Your task to perform on an android device: Open Chrome and go to the settings page Image 0: 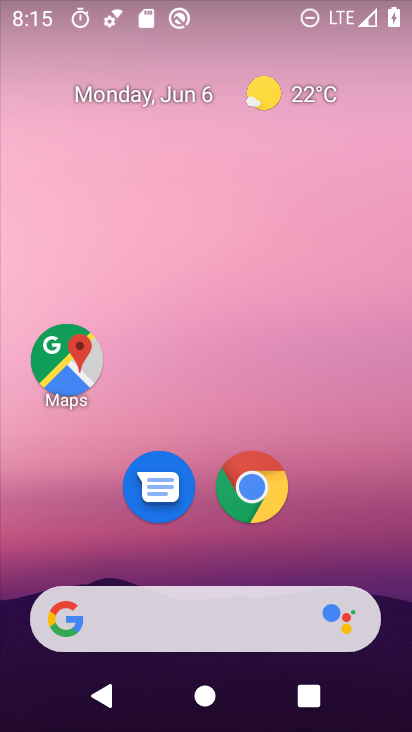
Step 0: drag from (391, 471) to (324, 108)
Your task to perform on an android device: Open Chrome and go to the settings page Image 1: 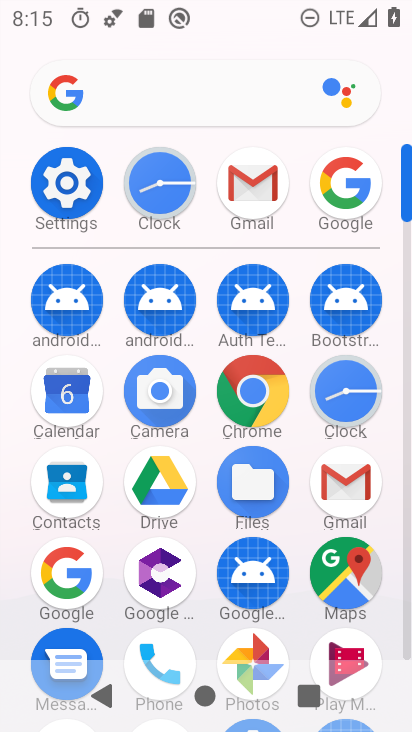
Step 1: click (276, 392)
Your task to perform on an android device: Open Chrome and go to the settings page Image 2: 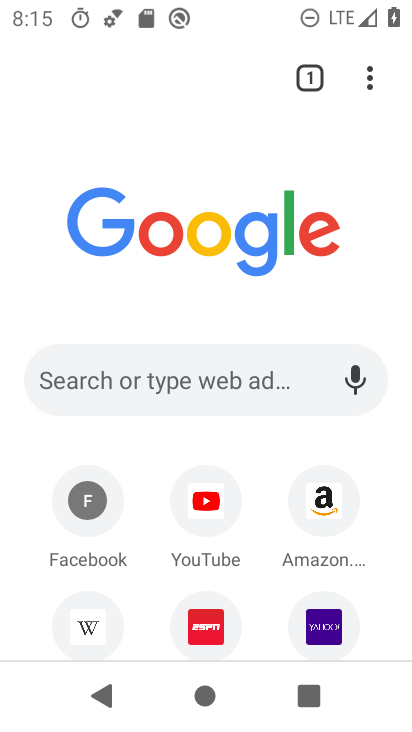
Step 2: click (370, 74)
Your task to perform on an android device: Open Chrome and go to the settings page Image 3: 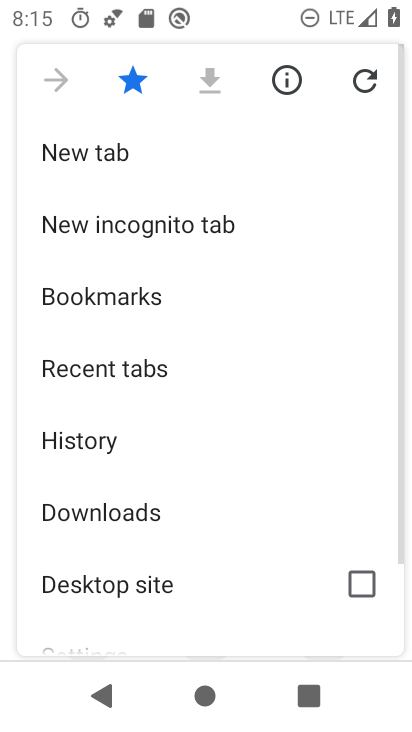
Step 3: drag from (161, 597) to (238, 166)
Your task to perform on an android device: Open Chrome and go to the settings page Image 4: 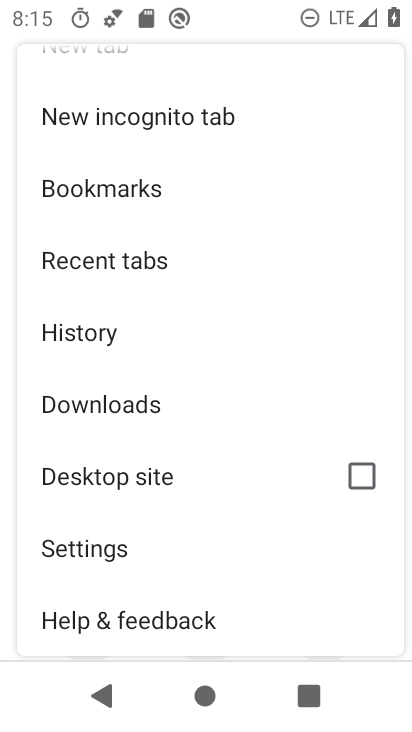
Step 4: click (118, 560)
Your task to perform on an android device: Open Chrome and go to the settings page Image 5: 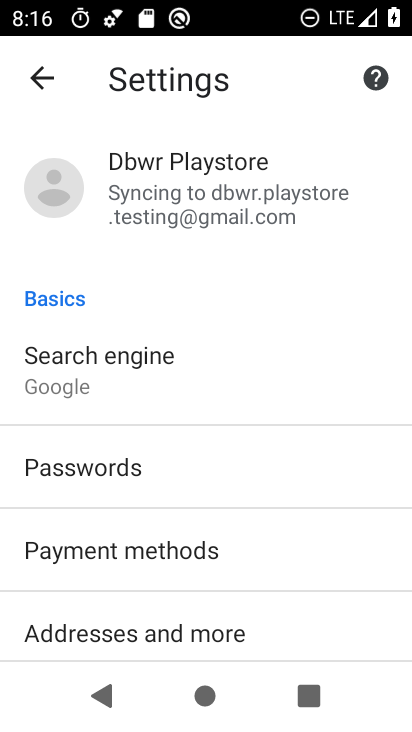
Step 5: task complete